Your task to perform on an android device: toggle show notifications on the lock screen Image 0: 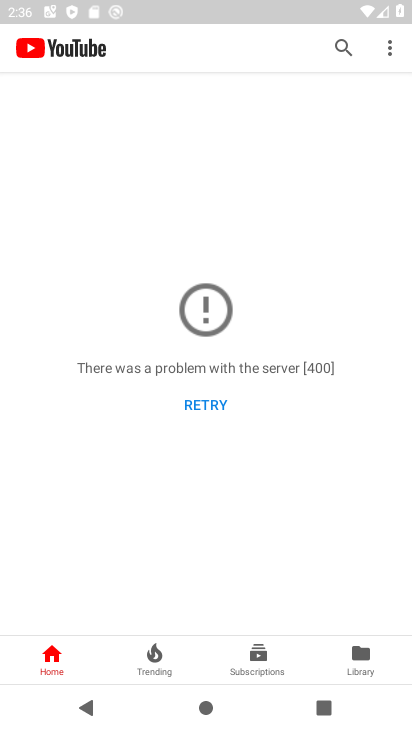
Step 0: press back button
Your task to perform on an android device: toggle show notifications on the lock screen Image 1: 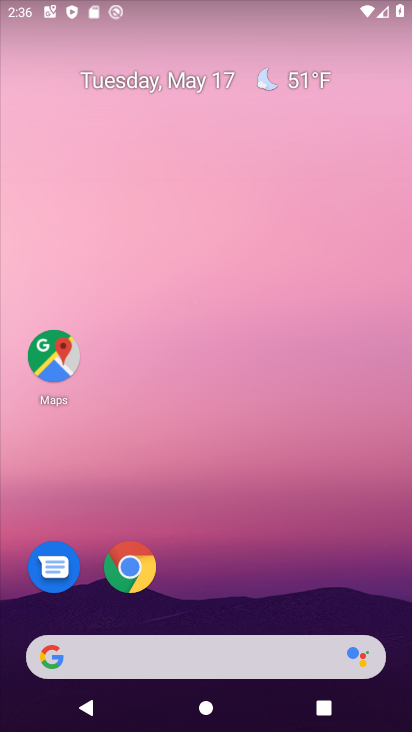
Step 1: drag from (199, 644) to (46, 299)
Your task to perform on an android device: toggle show notifications on the lock screen Image 2: 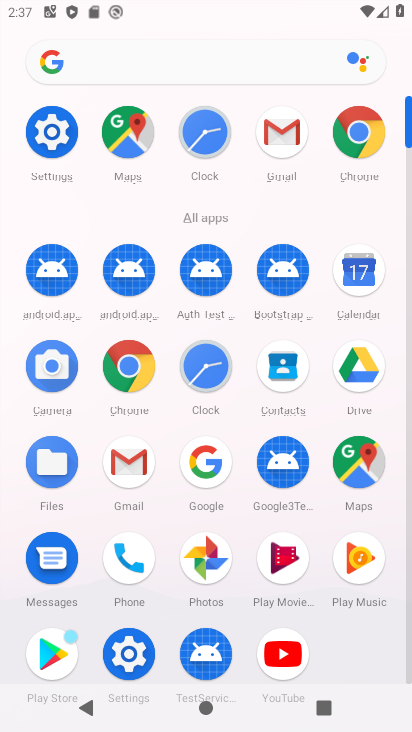
Step 2: click (132, 651)
Your task to perform on an android device: toggle show notifications on the lock screen Image 3: 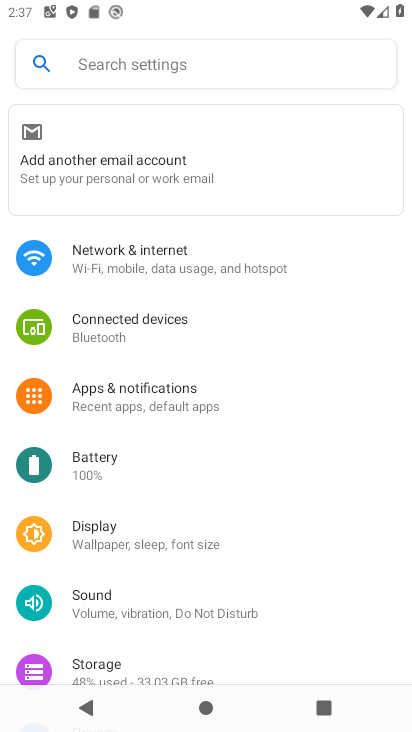
Step 3: click (149, 392)
Your task to perform on an android device: toggle show notifications on the lock screen Image 4: 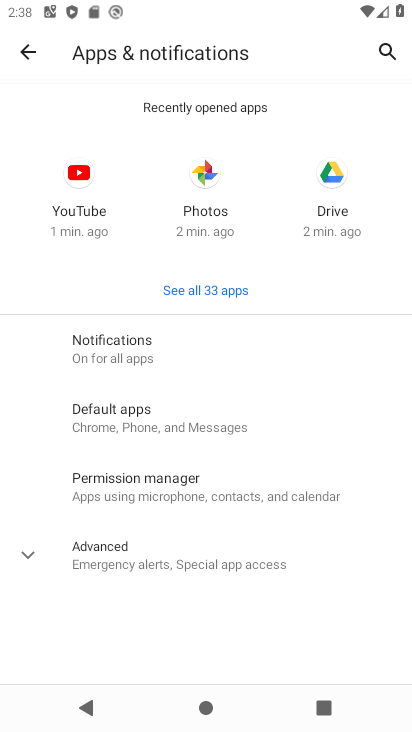
Step 4: click (138, 549)
Your task to perform on an android device: toggle show notifications on the lock screen Image 5: 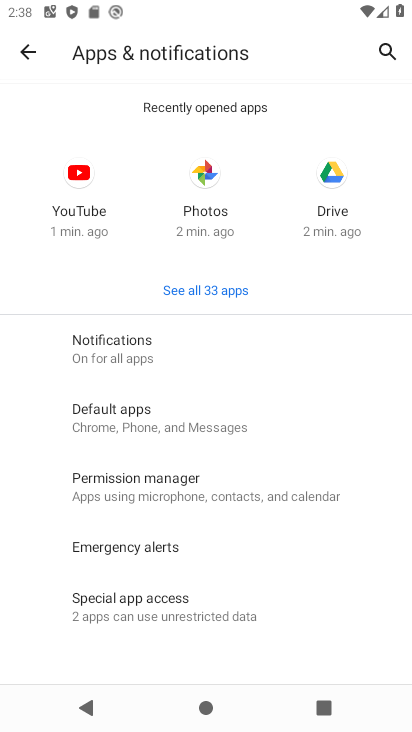
Step 5: click (154, 362)
Your task to perform on an android device: toggle show notifications on the lock screen Image 6: 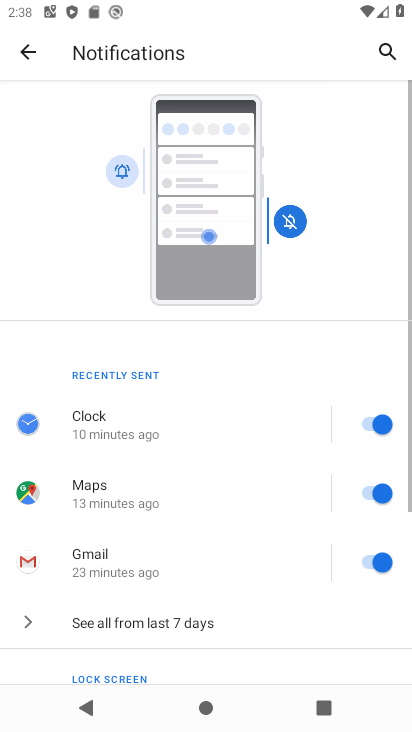
Step 6: drag from (177, 640) to (115, 90)
Your task to perform on an android device: toggle show notifications on the lock screen Image 7: 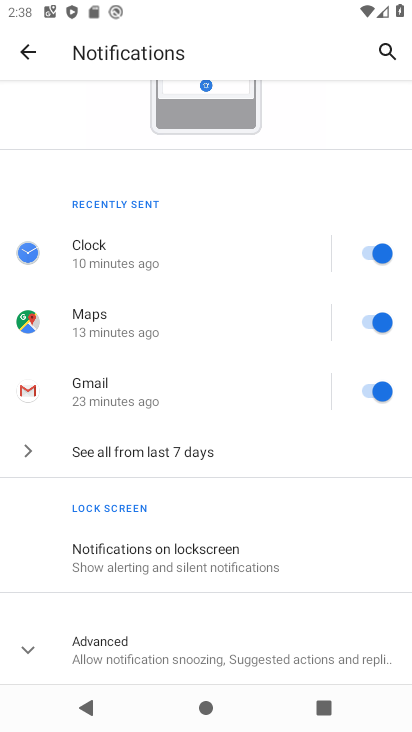
Step 7: click (165, 562)
Your task to perform on an android device: toggle show notifications on the lock screen Image 8: 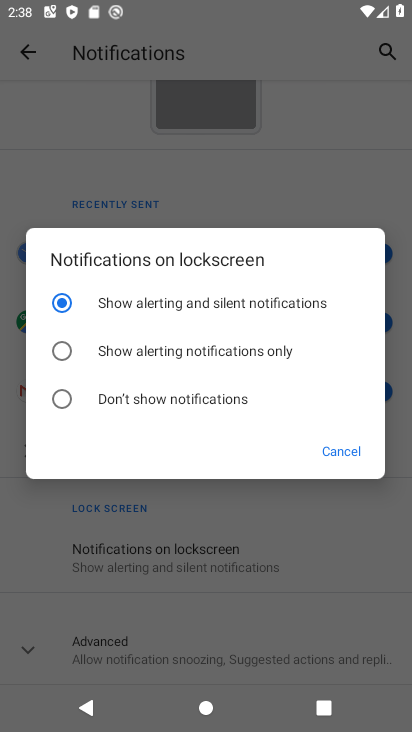
Step 8: click (188, 309)
Your task to perform on an android device: toggle show notifications on the lock screen Image 9: 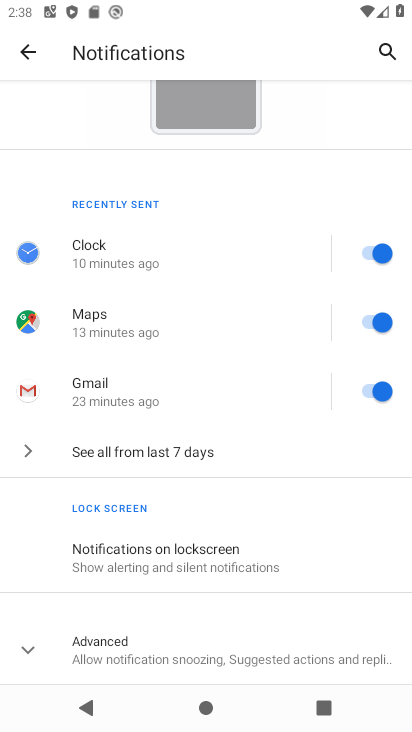
Step 9: task complete